Your task to perform on an android device: turn pop-ups off in chrome Image 0: 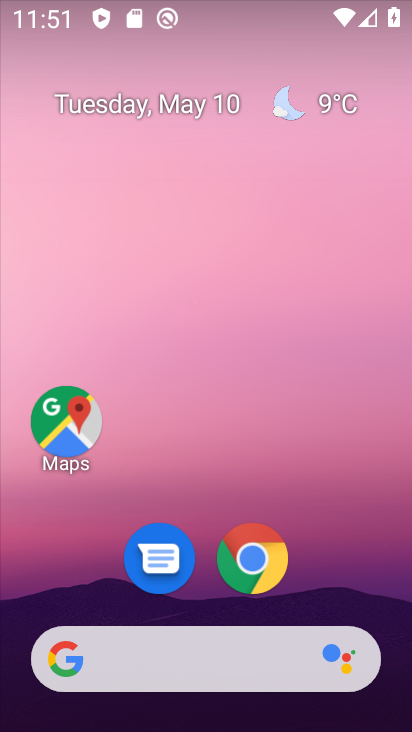
Step 0: drag from (383, 568) to (339, 242)
Your task to perform on an android device: turn pop-ups off in chrome Image 1: 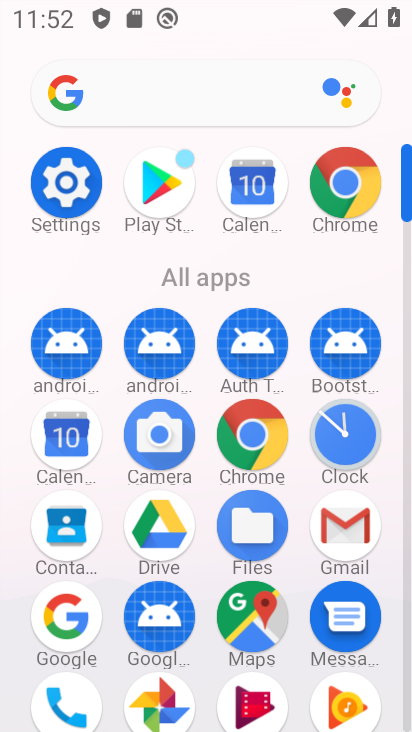
Step 1: click (268, 435)
Your task to perform on an android device: turn pop-ups off in chrome Image 2: 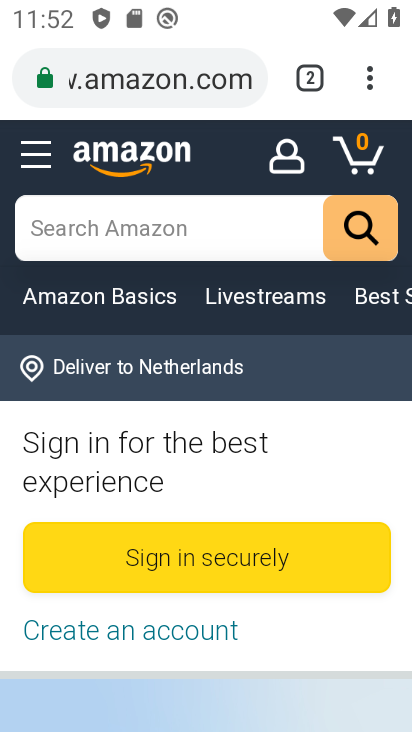
Step 2: drag from (371, 88) to (154, 606)
Your task to perform on an android device: turn pop-ups off in chrome Image 3: 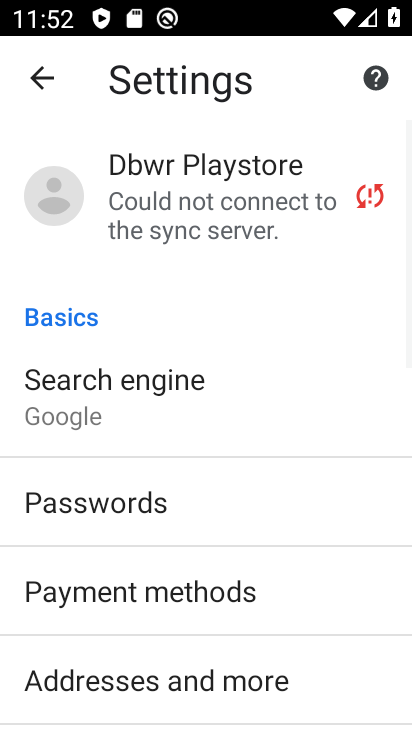
Step 3: drag from (315, 678) to (323, 359)
Your task to perform on an android device: turn pop-ups off in chrome Image 4: 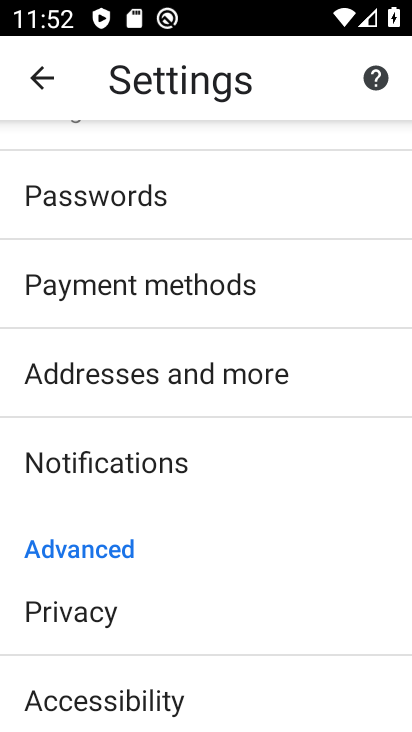
Step 4: drag from (341, 636) to (340, 351)
Your task to perform on an android device: turn pop-ups off in chrome Image 5: 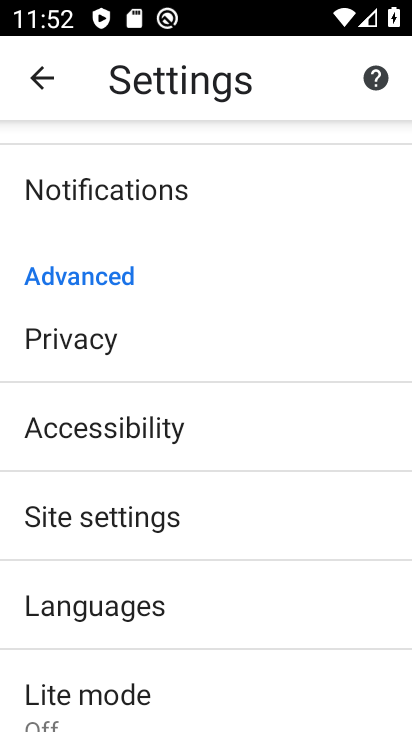
Step 5: drag from (322, 657) to (340, 340)
Your task to perform on an android device: turn pop-ups off in chrome Image 6: 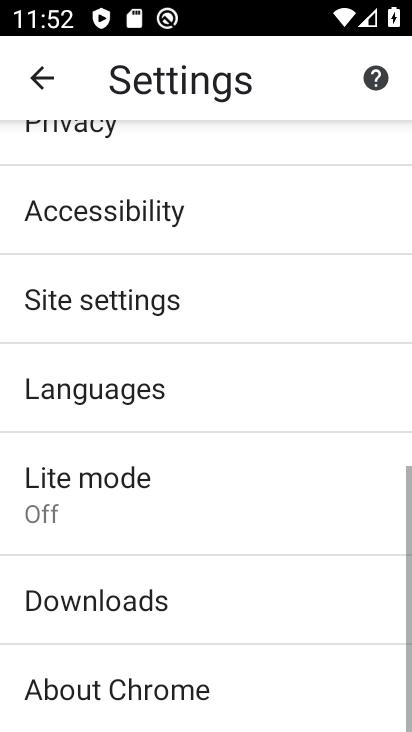
Step 6: drag from (342, 632) to (342, 296)
Your task to perform on an android device: turn pop-ups off in chrome Image 7: 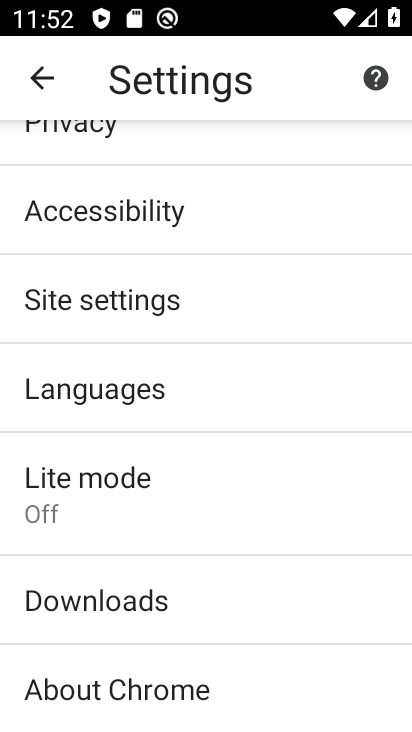
Step 7: click (173, 312)
Your task to perform on an android device: turn pop-ups off in chrome Image 8: 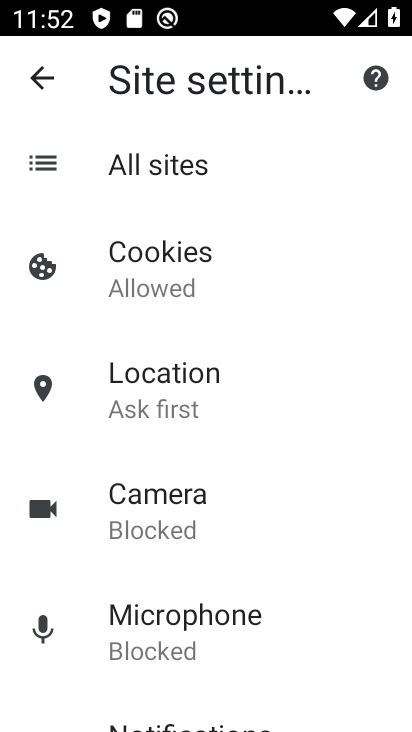
Step 8: drag from (231, 649) to (263, 367)
Your task to perform on an android device: turn pop-ups off in chrome Image 9: 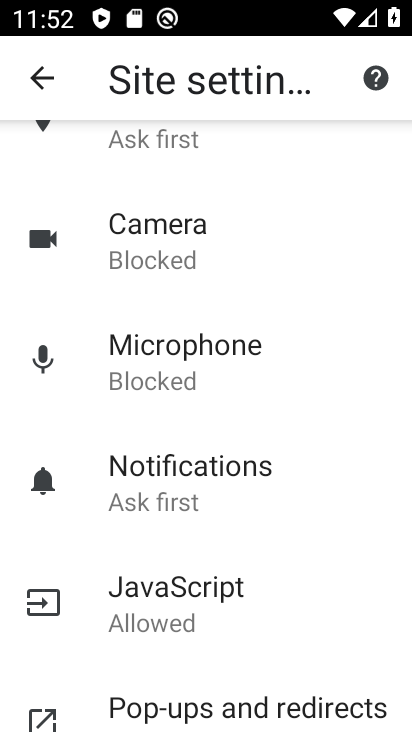
Step 9: drag from (238, 608) to (245, 333)
Your task to perform on an android device: turn pop-ups off in chrome Image 10: 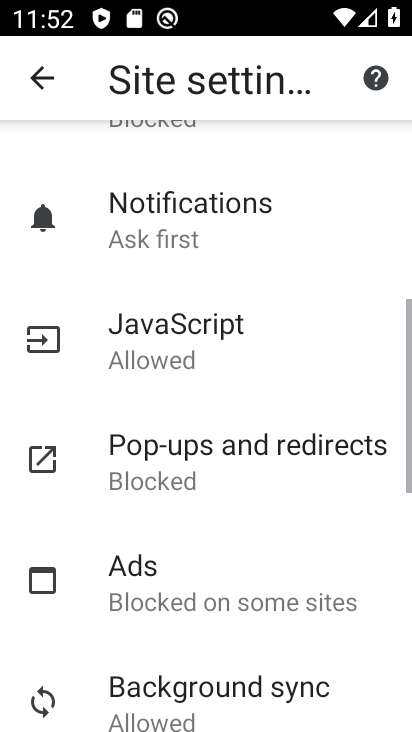
Step 10: click (210, 459)
Your task to perform on an android device: turn pop-ups off in chrome Image 11: 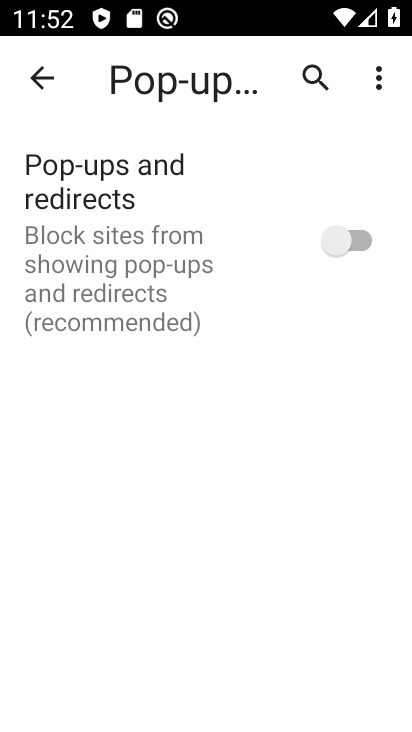
Step 11: task complete